Your task to perform on an android device: Open ESPN.com Image 0: 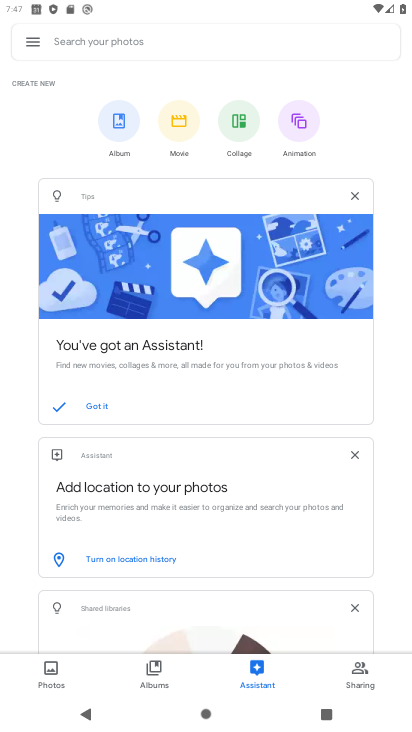
Step 0: press home button
Your task to perform on an android device: Open ESPN.com Image 1: 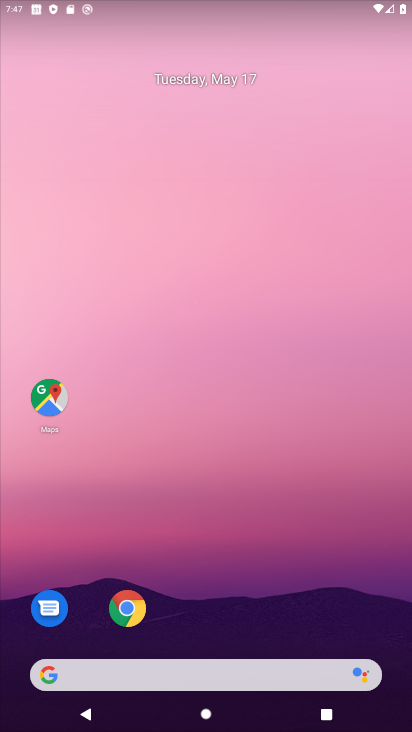
Step 1: click (136, 610)
Your task to perform on an android device: Open ESPN.com Image 2: 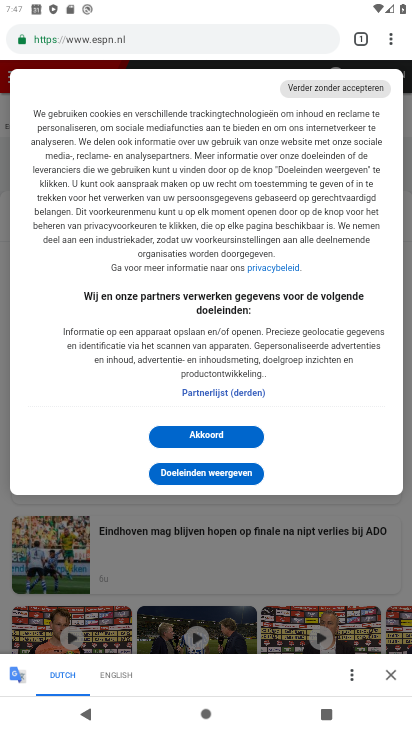
Step 2: click (121, 37)
Your task to perform on an android device: Open ESPN.com Image 3: 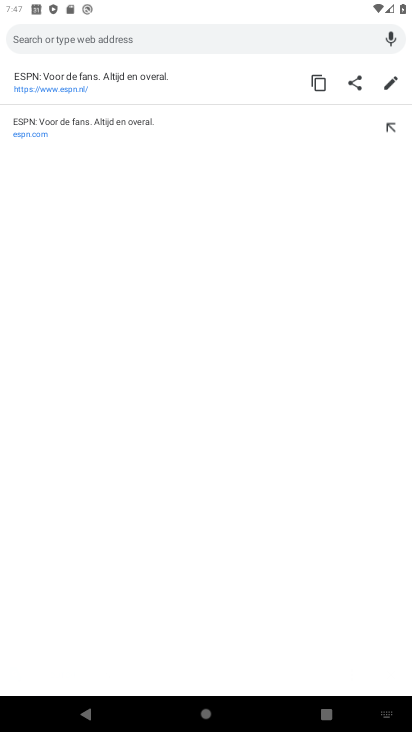
Step 3: type "ESPN.com"
Your task to perform on an android device: Open ESPN.com Image 4: 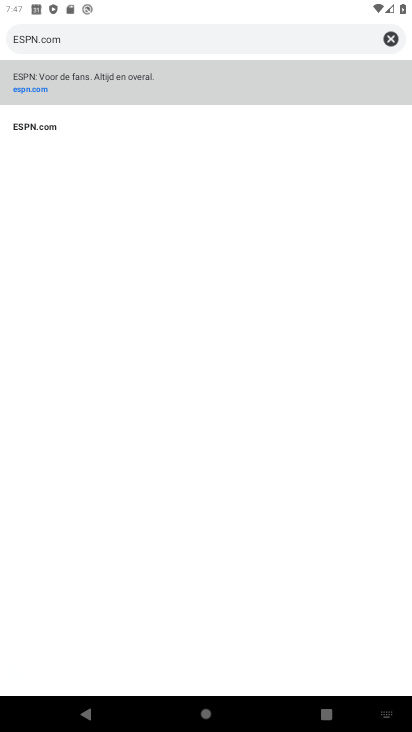
Step 4: click (9, 125)
Your task to perform on an android device: Open ESPN.com Image 5: 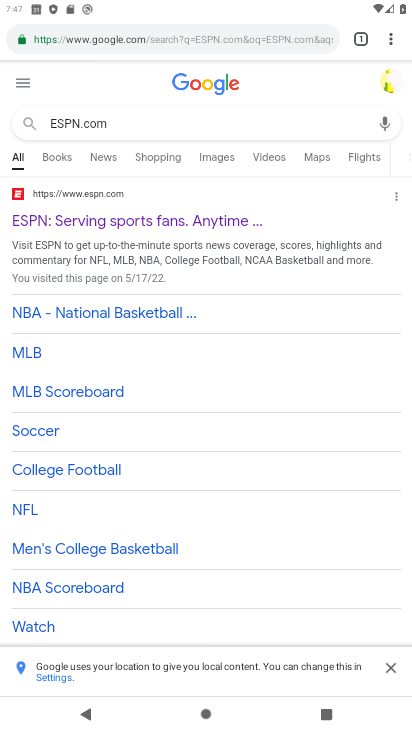
Step 5: task complete